Your task to perform on an android device: Clear the shopping cart on costco. Add apple airpods to the cart on costco Image 0: 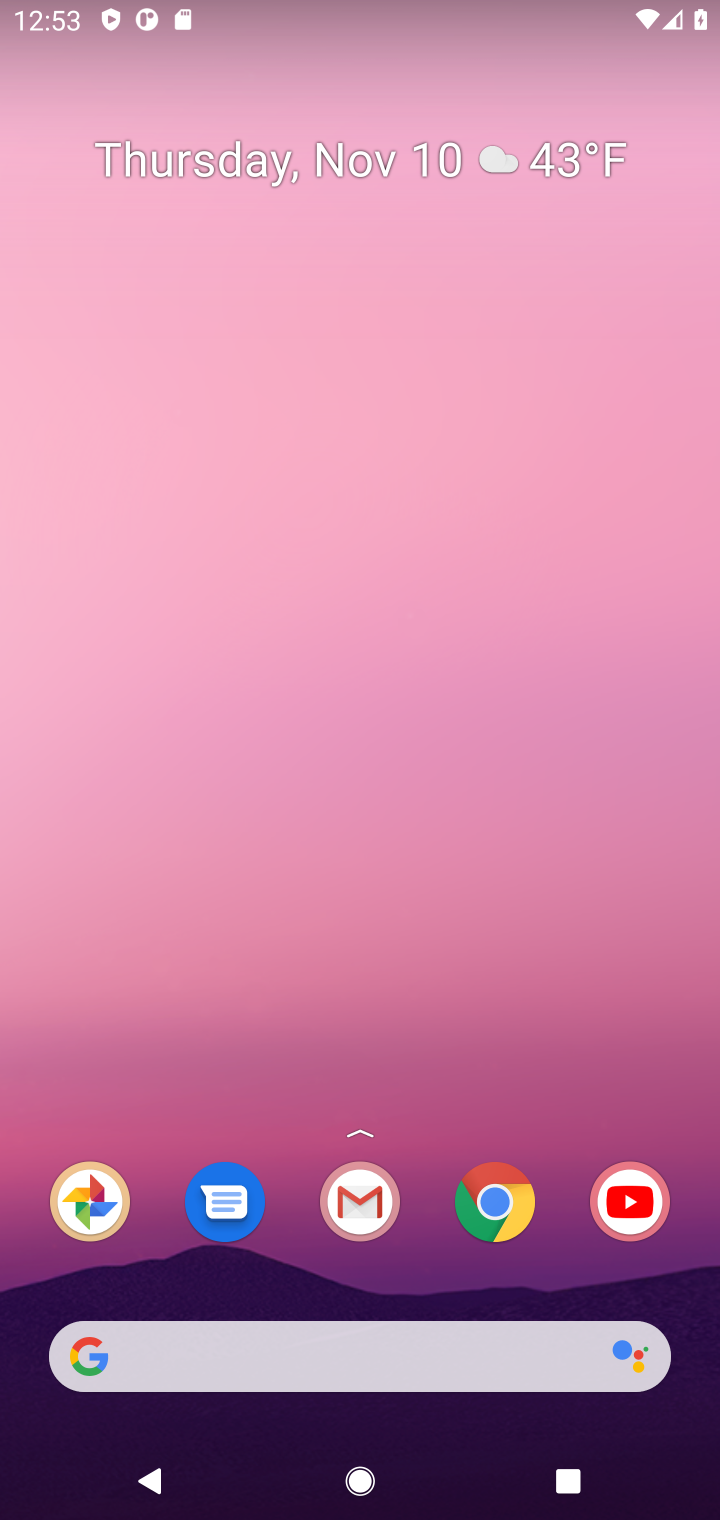
Step 0: click (483, 1200)
Your task to perform on an android device: Clear the shopping cart on costco. Add apple airpods to the cart on costco Image 1: 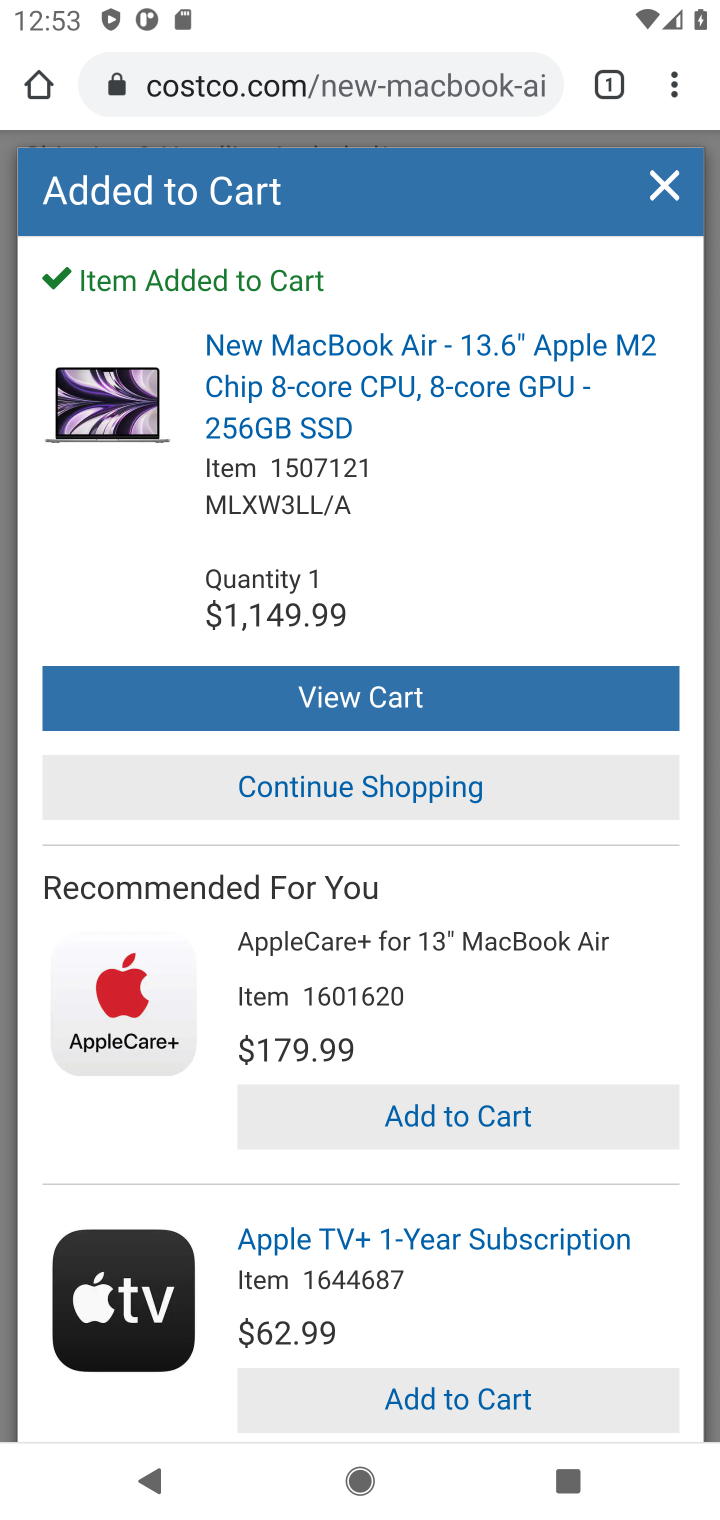
Step 1: task complete